Your task to perform on an android device: toggle airplane mode Image 0: 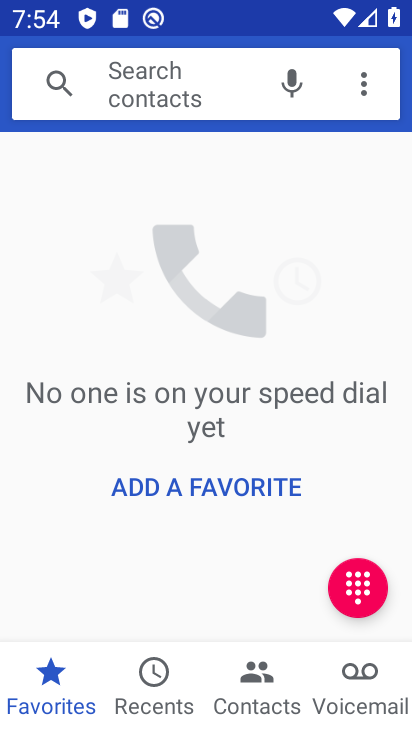
Step 0: press home button
Your task to perform on an android device: toggle airplane mode Image 1: 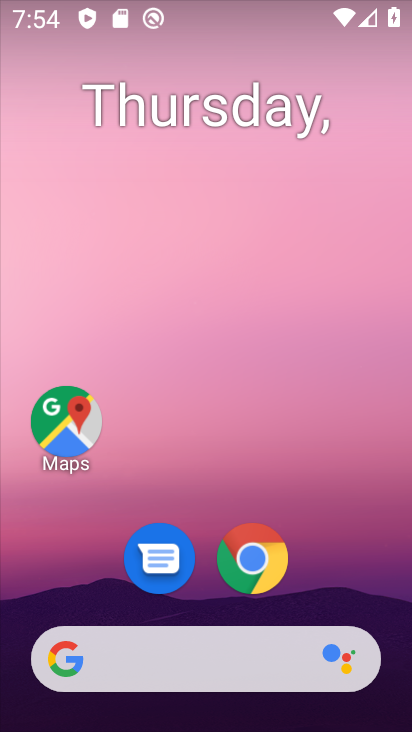
Step 1: drag from (190, 608) to (215, 159)
Your task to perform on an android device: toggle airplane mode Image 2: 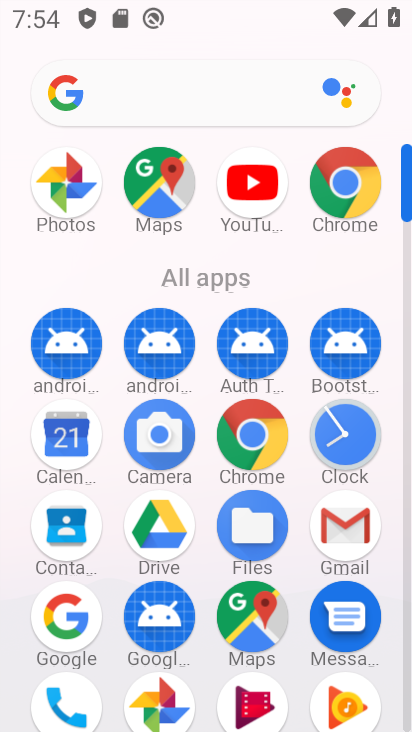
Step 2: drag from (202, 583) to (242, 302)
Your task to perform on an android device: toggle airplane mode Image 3: 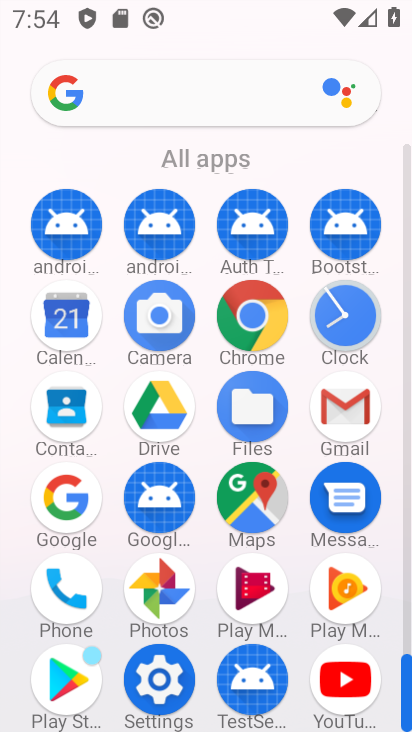
Step 3: click (151, 681)
Your task to perform on an android device: toggle airplane mode Image 4: 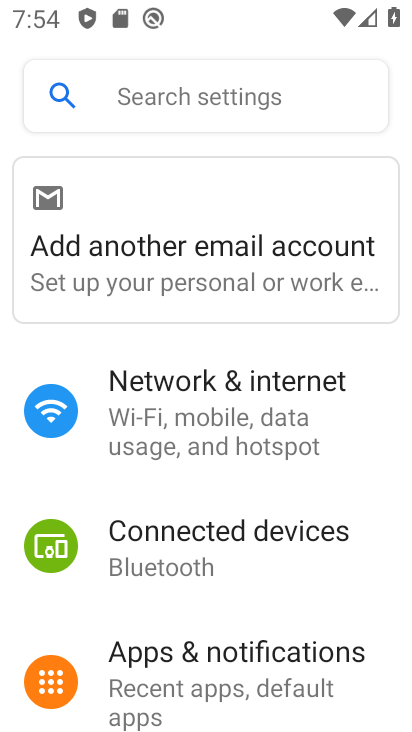
Step 4: click (255, 439)
Your task to perform on an android device: toggle airplane mode Image 5: 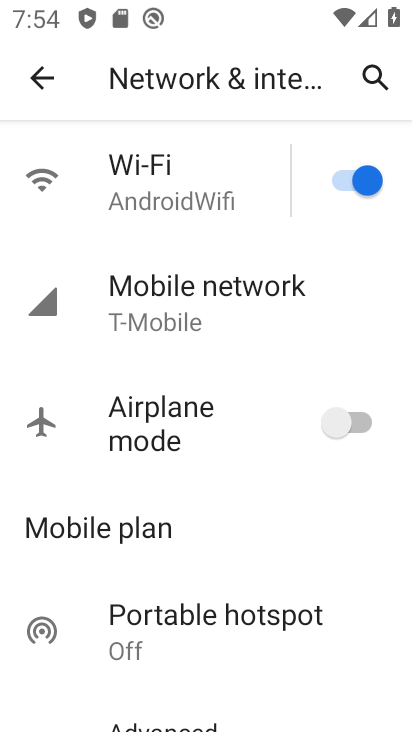
Step 5: click (346, 428)
Your task to perform on an android device: toggle airplane mode Image 6: 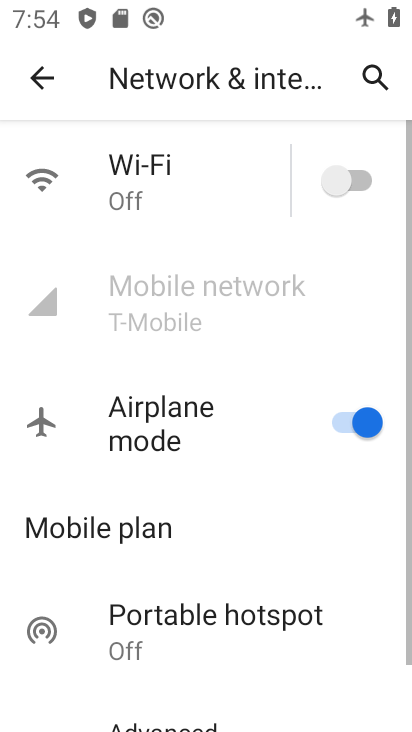
Step 6: task complete